Your task to perform on an android device: toggle sleep mode Image 0: 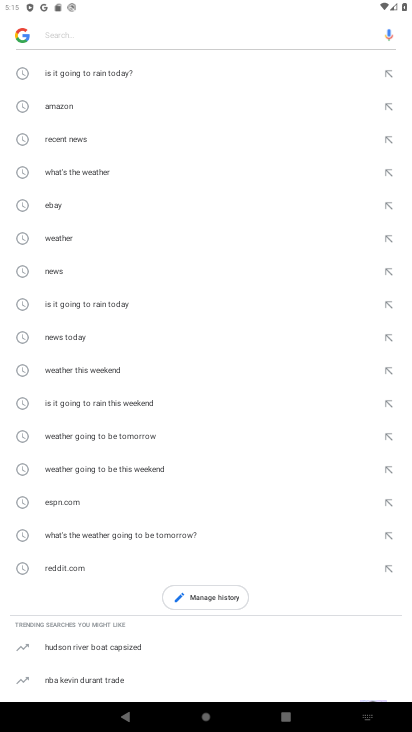
Step 0: press home button
Your task to perform on an android device: toggle sleep mode Image 1: 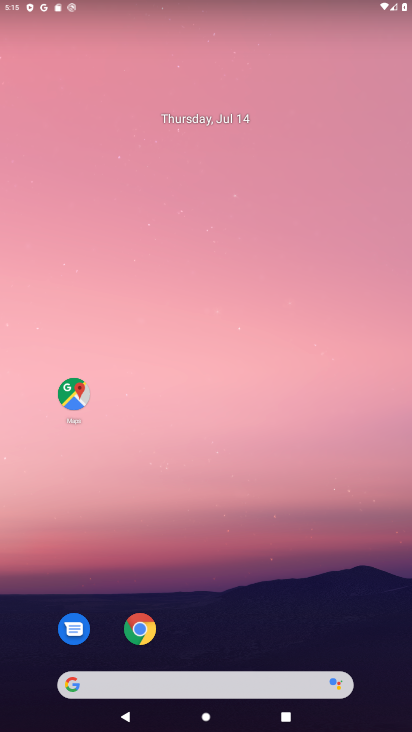
Step 1: drag from (287, 685) to (348, 150)
Your task to perform on an android device: toggle sleep mode Image 2: 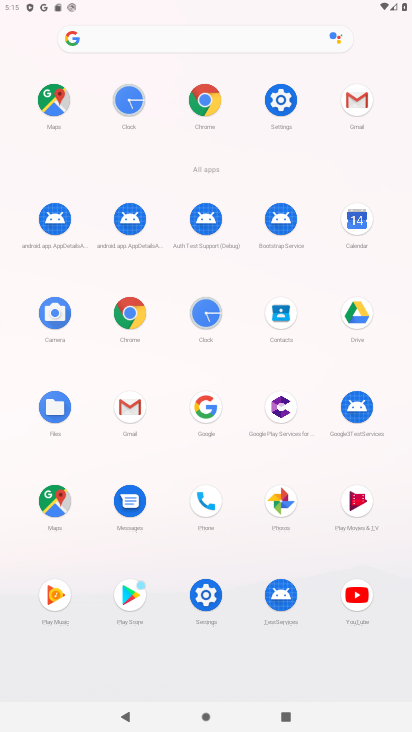
Step 2: click (283, 107)
Your task to perform on an android device: toggle sleep mode Image 3: 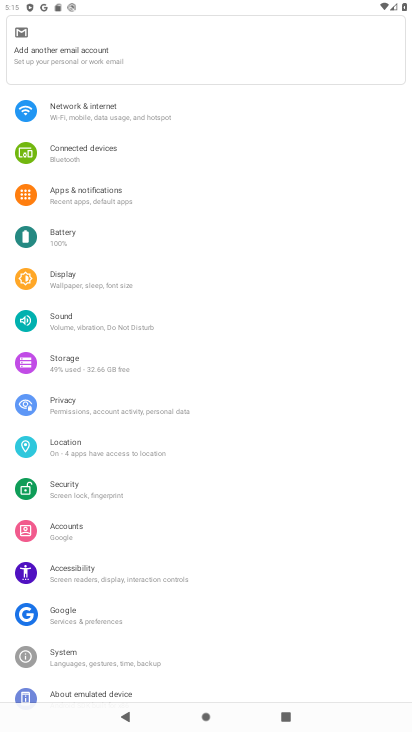
Step 3: click (119, 284)
Your task to perform on an android device: toggle sleep mode Image 4: 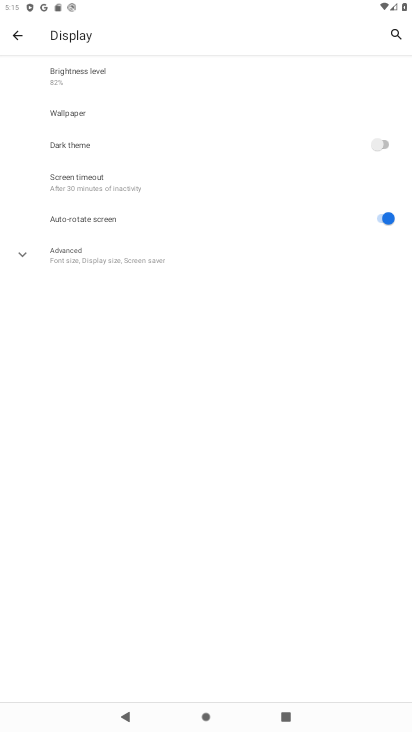
Step 4: task complete